Your task to perform on an android device: change notifications settings Image 0: 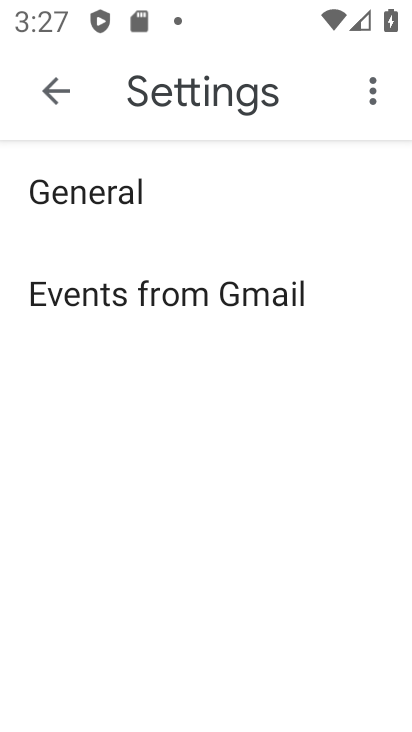
Step 0: press home button
Your task to perform on an android device: change notifications settings Image 1: 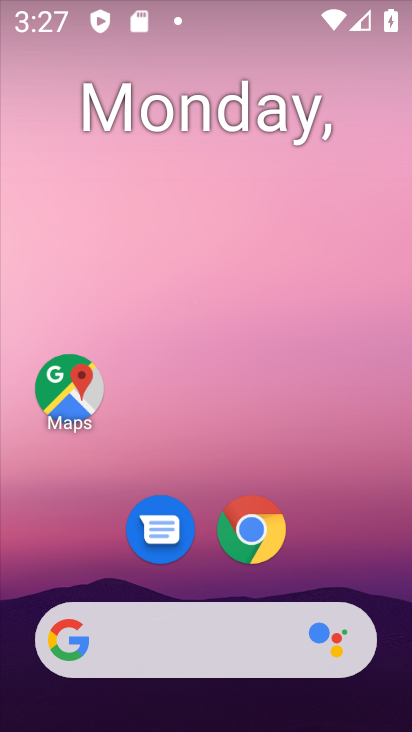
Step 1: drag from (233, 610) to (36, 147)
Your task to perform on an android device: change notifications settings Image 2: 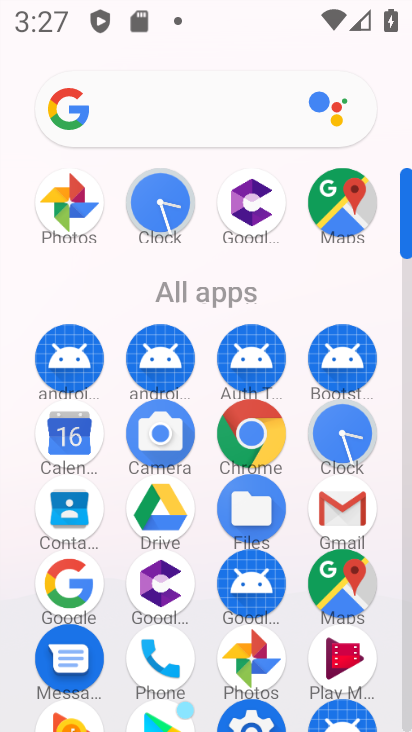
Step 2: click (243, 711)
Your task to perform on an android device: change notifications settings Image 3: 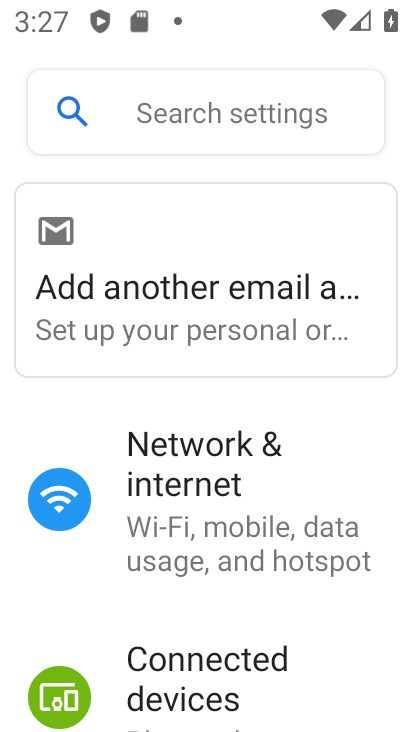
Step 3: drag from (218, 639) to (244, 133)
Your task to perform on an android device: change notifications settings Image 4: 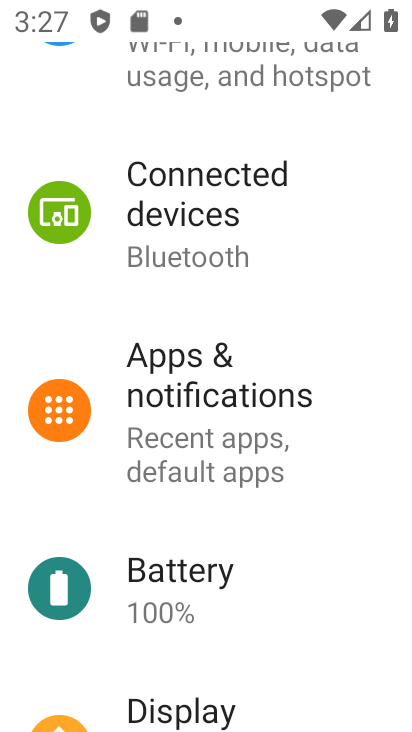
Step 4: drag from (269, 534) to (195, 0)
Your task to perform on an android device: change notifications settings Image 5: 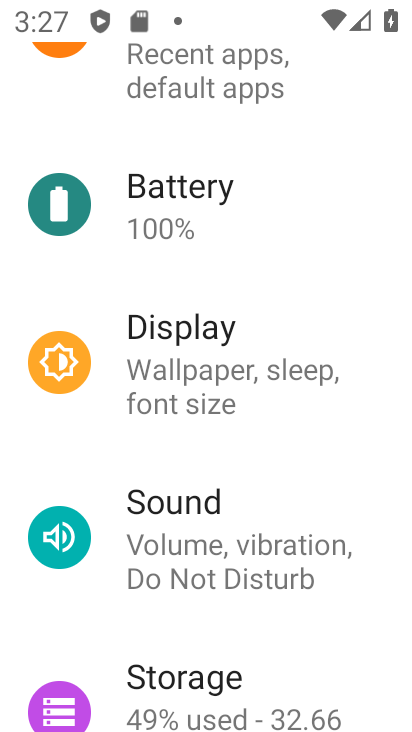
Step 5: drag from (276, 583) to (256, 80)
Your task to perform on an android device: change notifications settings Image 6: 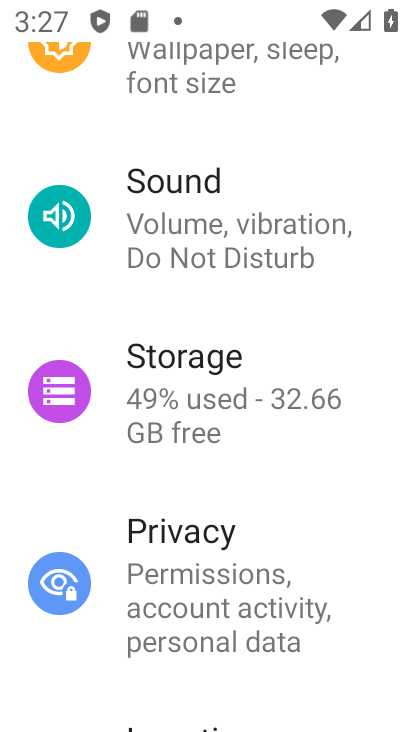
Step 6: drag from (204, 619) to (213, 83)
Your task to perform on an android device: change notifications settings Image 7: 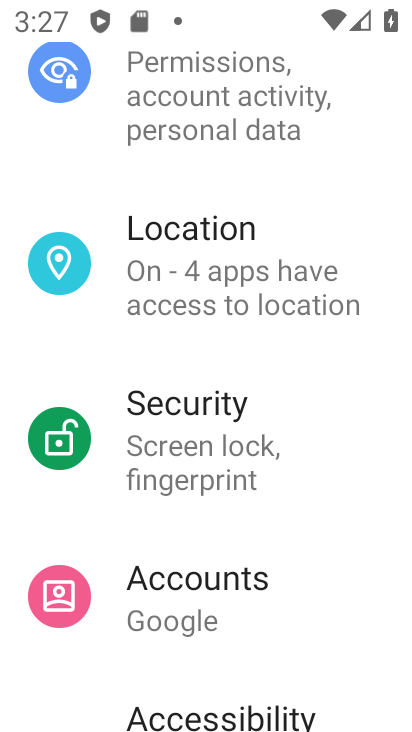
Step 7: drag from (174, 134) to (234, 722)
Your task to perform on an android device: change notifications settings Image 8: 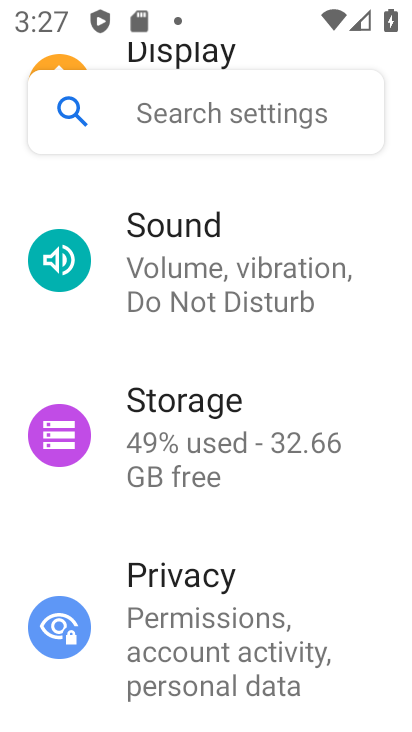
Step 8: drag from (199, 246) to (232, 703)
Your task to perform on an android device: change notifications settings Image 9: 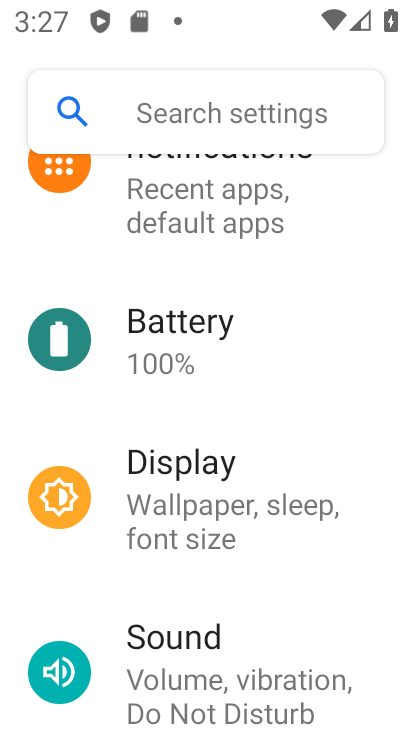
Step 9: drag from (199, 246) to (212, 581)
Your task to perform on an android device: change notifications settings Image 10: 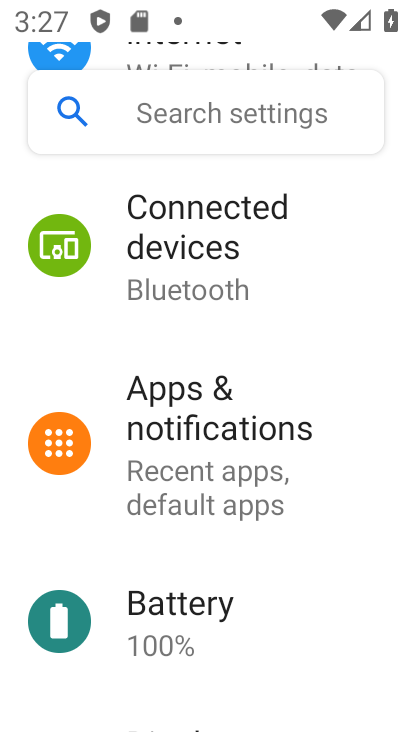
Step 10: drag from (173, 636) to (184, 331)
Your task to perform on an android device: change notifications settings Image 11: 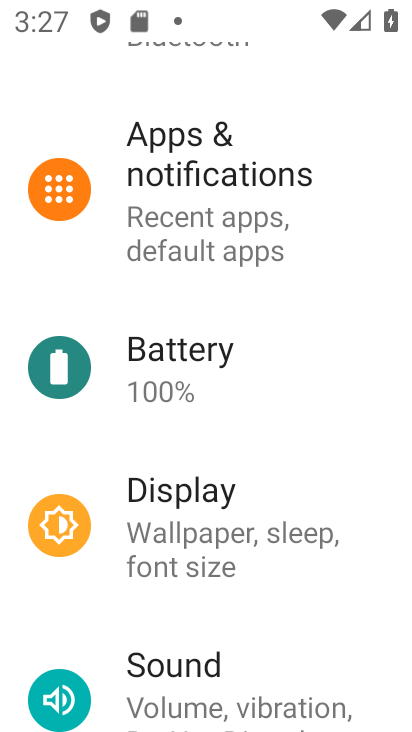
Step 11: click (207, 696)
Your task to perform on an android device: change notifications settings Image 12: 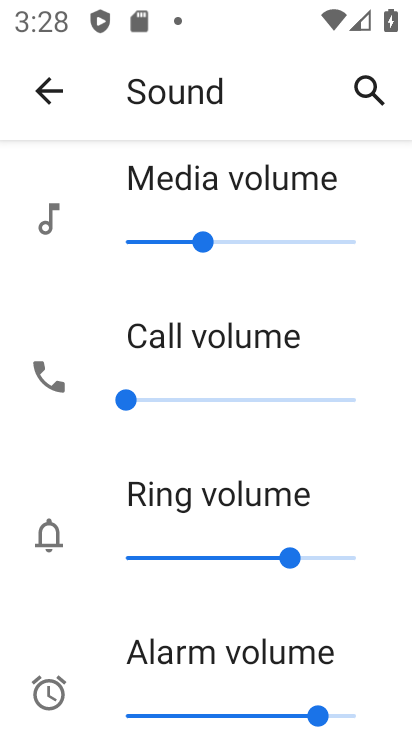
Step 12: drag from (232, 644) to (239, 283)
Your task to perform on an android device: change notifications settings Image 13: 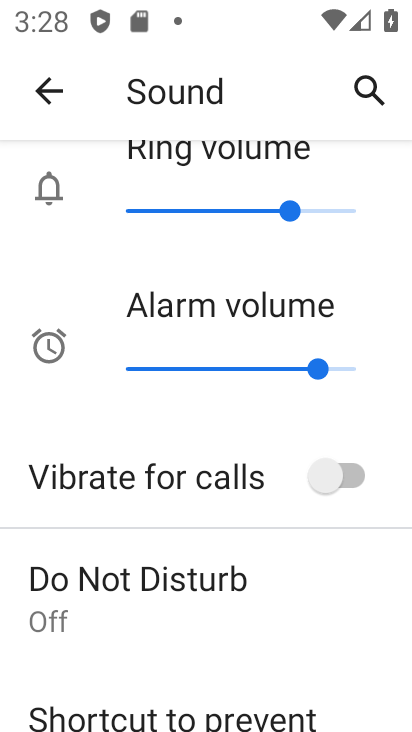
Step 13: click (342, 491)
Your task to perform on an android device: change notifications settings Image 14: 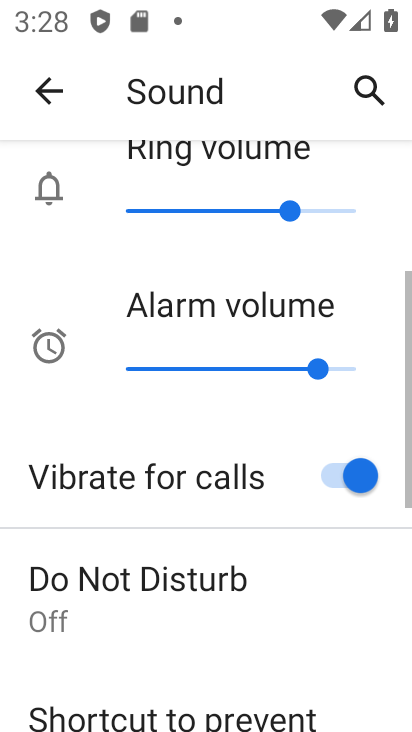
Step 14: task complete